Your task to perform on an android device: turn off smart reply in the gmail app Image 0: 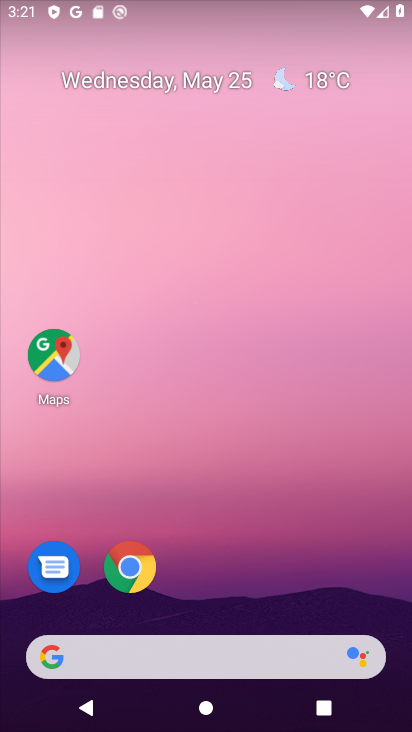
Step 0: drag from (385, 604) to (388, 191)
Your task to perform on an android device: turn off smart reply in the gmail app Image 1: 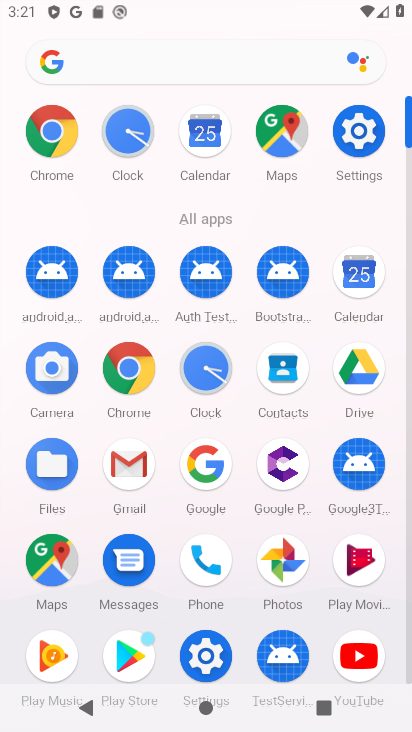
Step 1: click (140, 474)
Your task to perform on an android device: turn off smart reply in the gmail app Image 2: 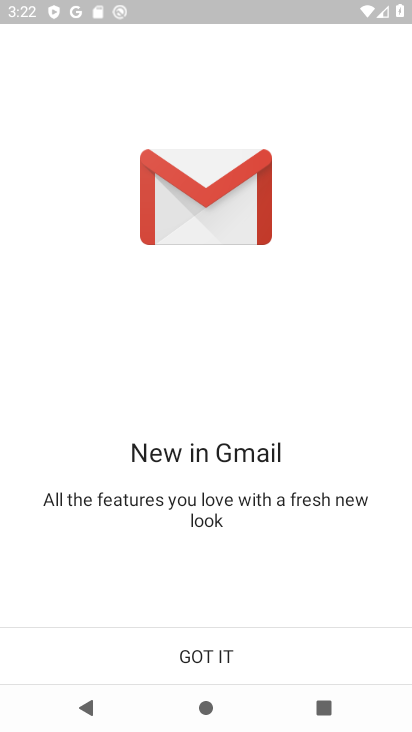
Step 2: click (206, 657)
Your task to perform on an android device: turn off smart reply in the gmail app Image 3: 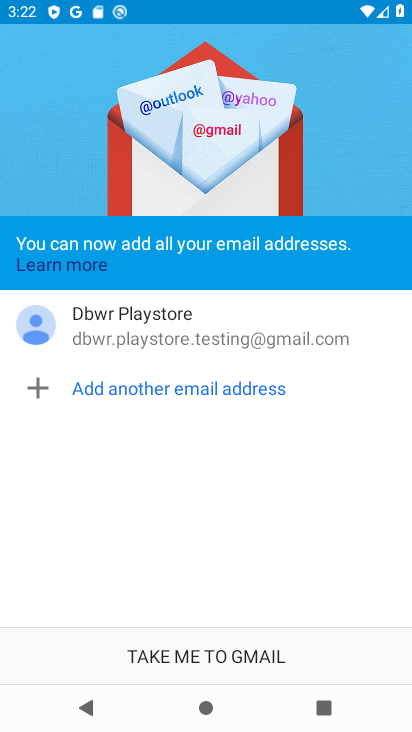
Step 3: click (206, 657)
Your task to perform on an android device: turn off smart reply in the gmail app Image 4: 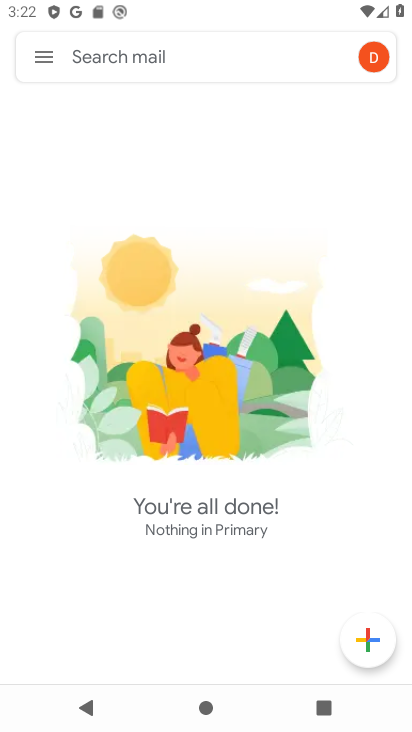
Step 4: click (59, 63)
Your task to perform on an android device: turn off smart reply in the gmail app Image 5: 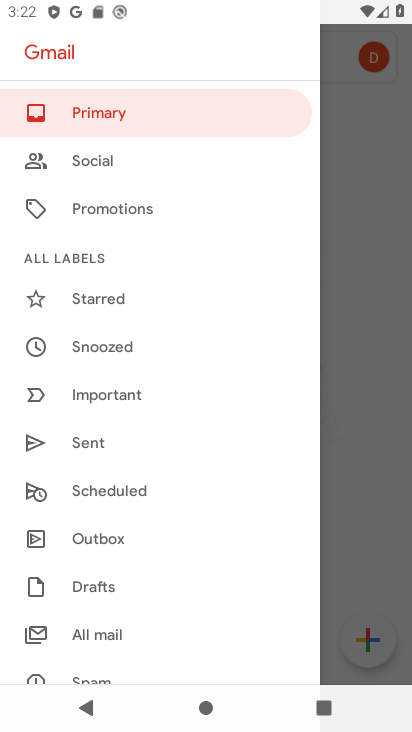
Step 5: drag from (242, 537) to (246, 380)
Your task to perform on an android device: turn off smart reply in the gmail app Image 6: 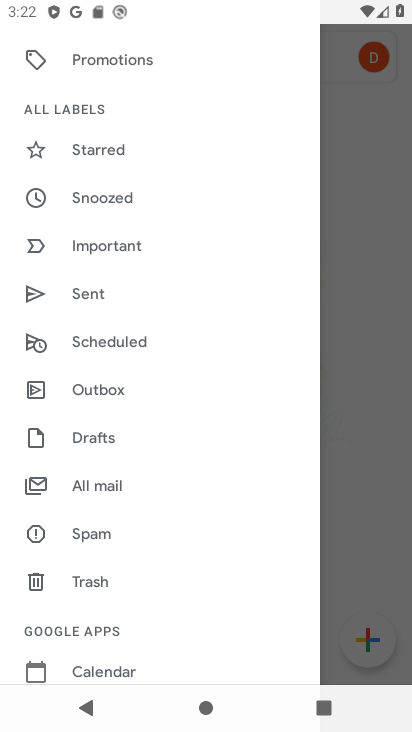
Step 6: drag from (254, 554) to (253, 462)
Your task to perform on an android device: turn off smart reply in the gmail app Image 7: 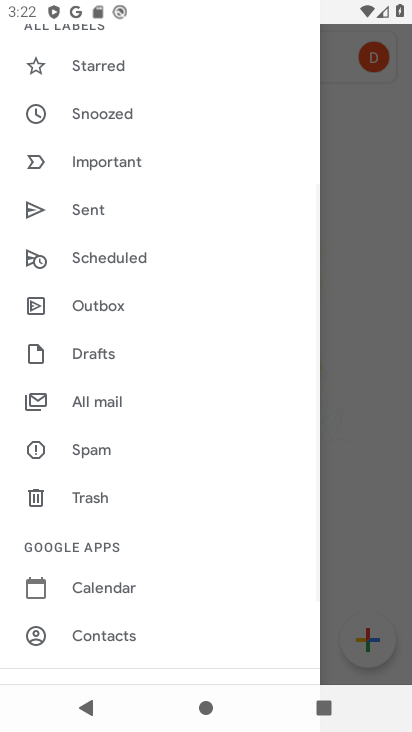
Step 7: drag from (238, 583) to (269, 465)
Your task to perform on an android device: turn off smart reply in the gmail app Image 8: 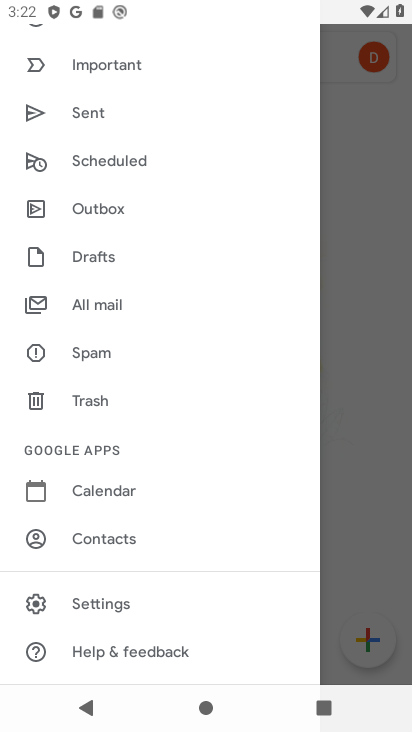
Step 8: click (144, 609)
Your task to perform on an android device: turn off smart reply in the gmail app Image 9: 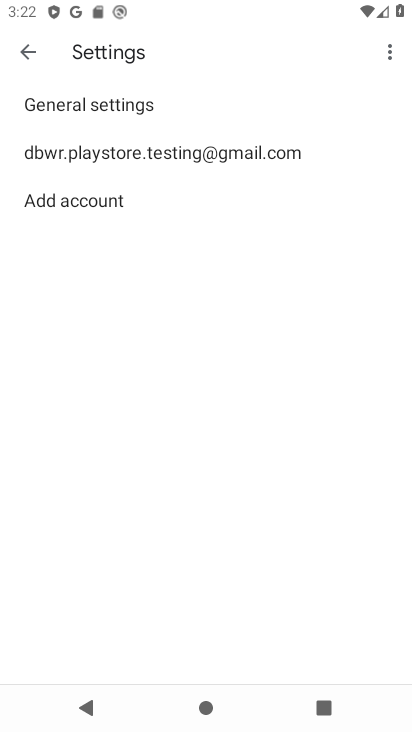
Step 9: click (238, 167)
Your task to perform on an android device: turn off smart reply in the gmail app Image 10: 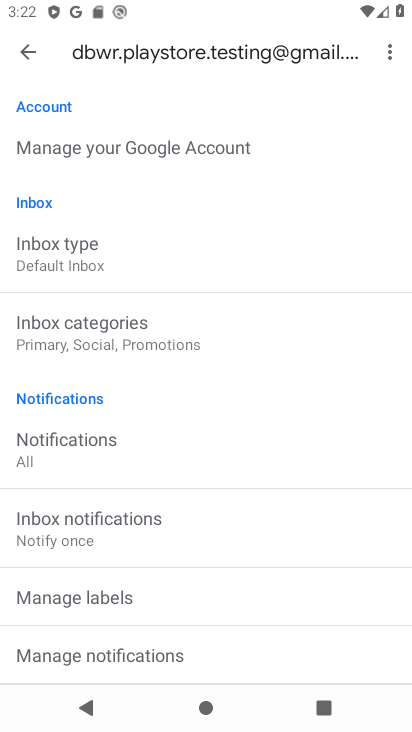
Step 10: drag from (291, 526) to (315, 397)
Your task to perform on an android device: turn off smart reply in the gmail app Image 11: 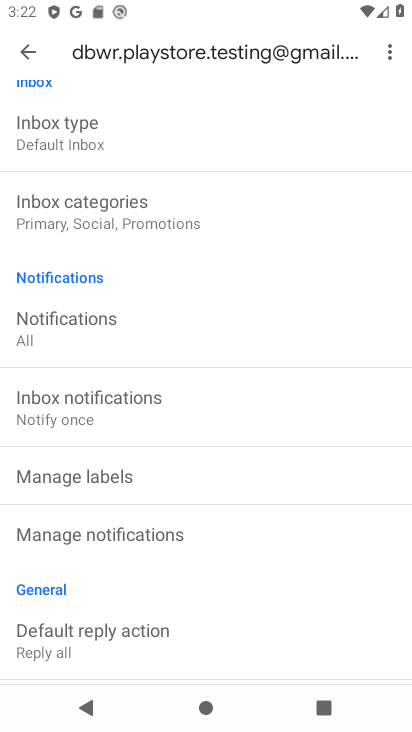
Step 11: drag from (311, 533) to (326, 448)
Your task to perform on an android device: turn off smart reply in the gmail app Image 12: 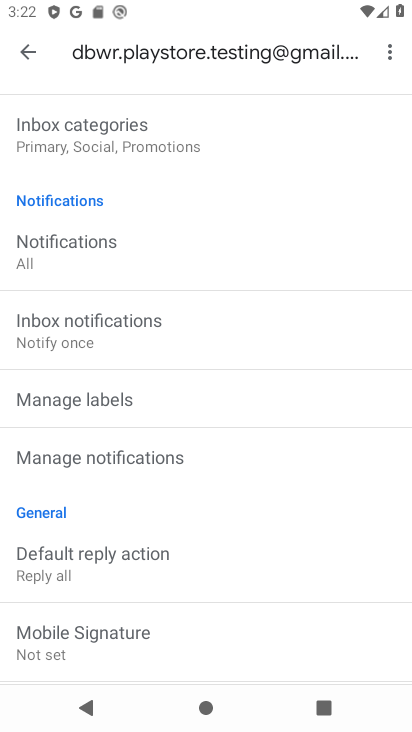
Step 12: drag from (311, 554) to (328, 433)
Your task to perform on an android device: turn off smart reply in the gmail app Image 13: 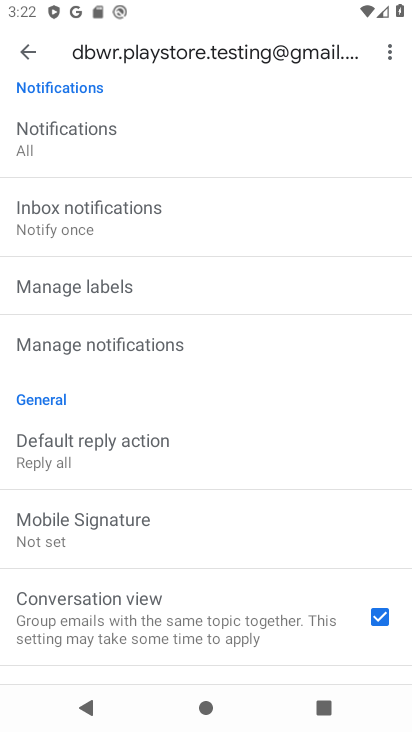
Step 13: drag from (324, 567) to (334, 437)
Your task to perform on an android device: turn off smart reply in the gmail app Image 14: 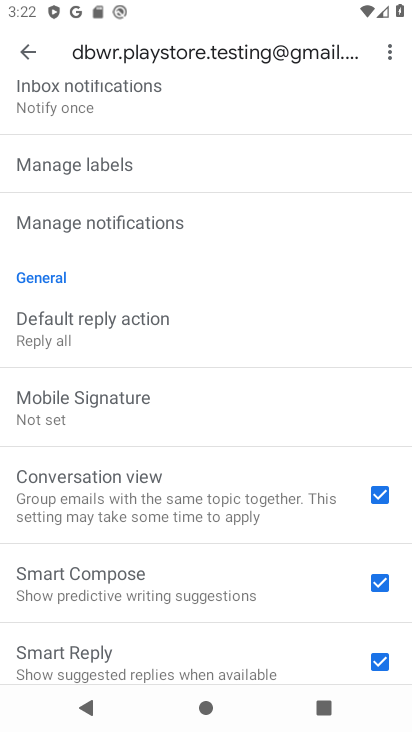
Step 14: drag from (307, 600) to (324, 485)
Your task to perform on an android device: turn off smart reply in the gmail app Image 15: 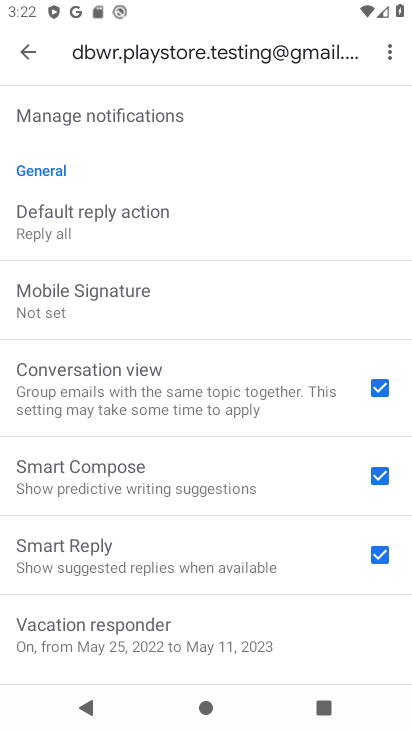
Step 15: drag from (317, 598) to (327, 472)
Your task to perform on an android device: turn off smart reply in the gmail app Image 16: 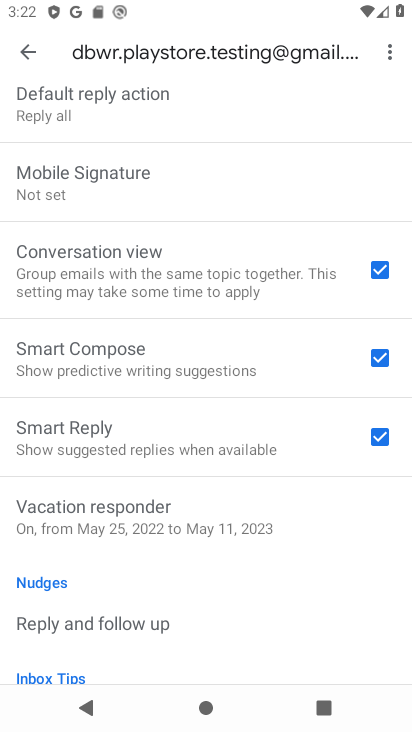
Step 16: click (376, 445)
Your task to perform on an android device: turn off smart reply in the gmail app Image 17: 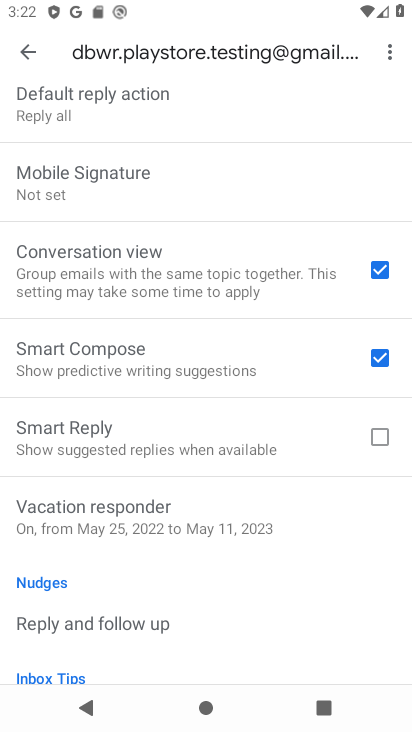
Step 17: task complete